Your task to perform on an android device: Go to Yahoo.com Image 0: 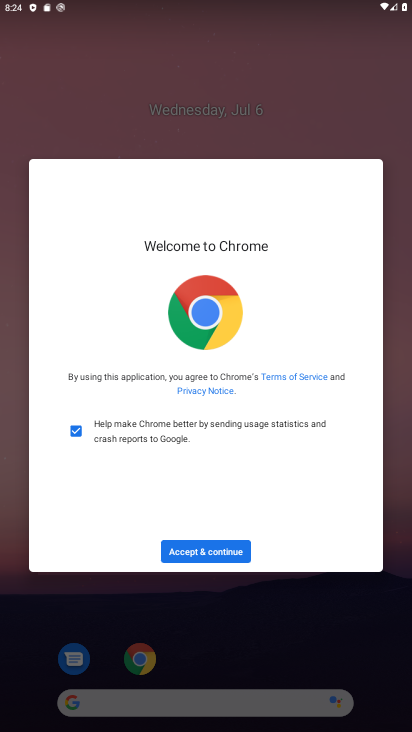
Step 0: press home button
Your task to perform on an android device: Go to Yahoo.com Image 1: 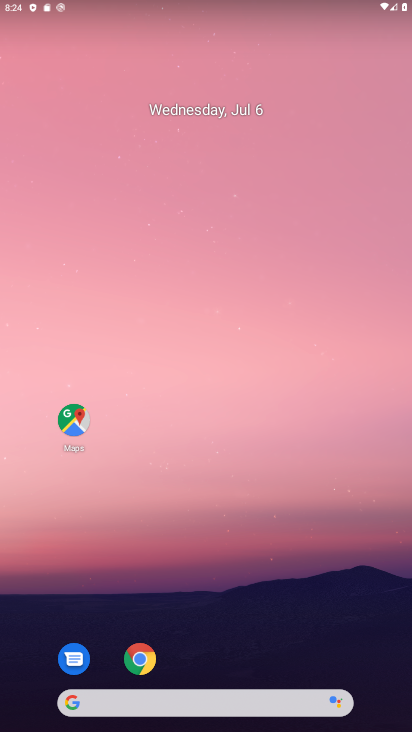
Step 1: drag from (201, 640) to (177, 64)
Your task to perform on an android device: Go to Yahoo.com Image 2: 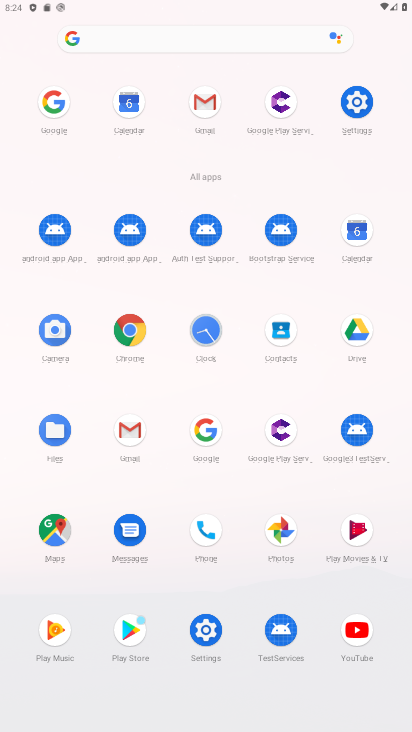
Step 2: drag from (207, 432) to (154, 379)
Your task to perform on an android device: Go to Yahoo.com Image 3: 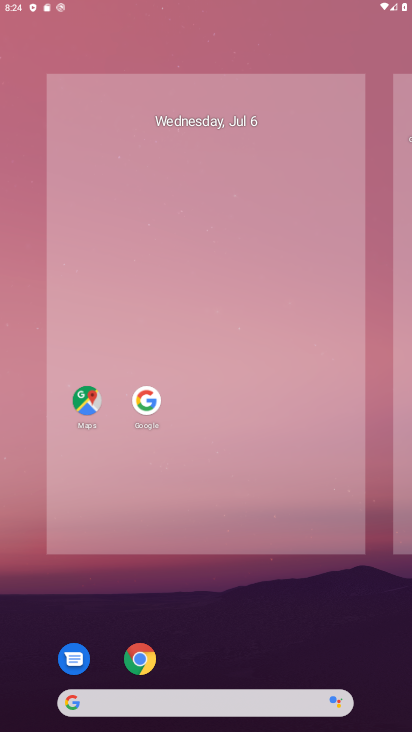
Step 3: click (142, 664)
Your task to perform on an android device: Go to Yahoo.com Image 4: 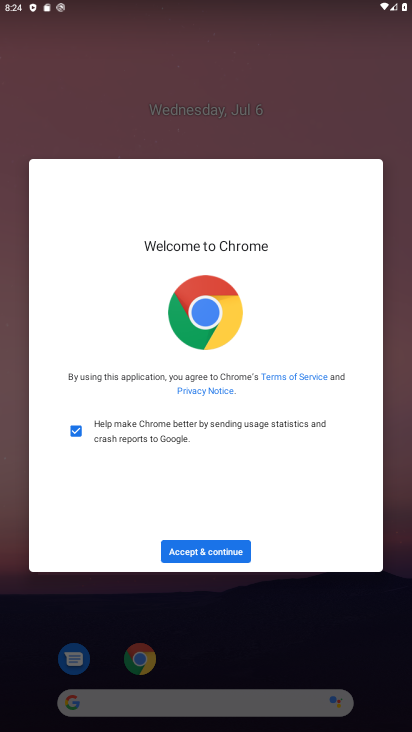
Step 4: click (199, 549)
Your task to perform on an android device: Go to Yahoo.com Image 5: 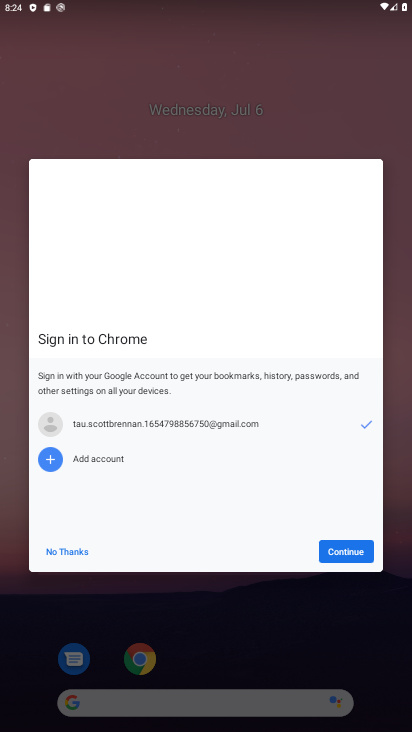
Step 5: click (384, 549)
Your task to perform on an android device: Go to Yahoo.com Image 6: 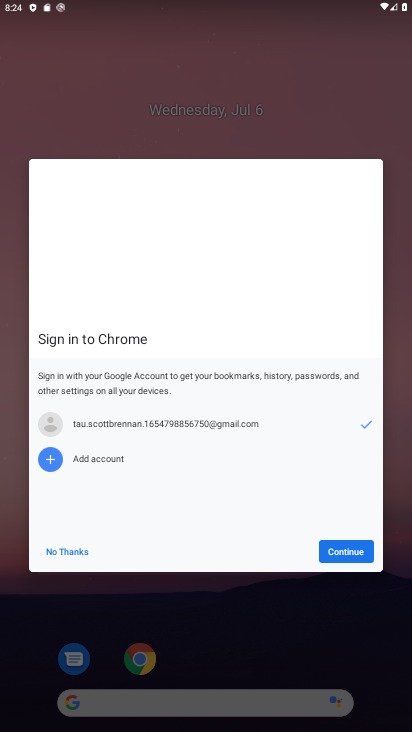
Step 6: click (343, 555)
Your task to perform on an android device: Go to Yahoo.com Image 7: 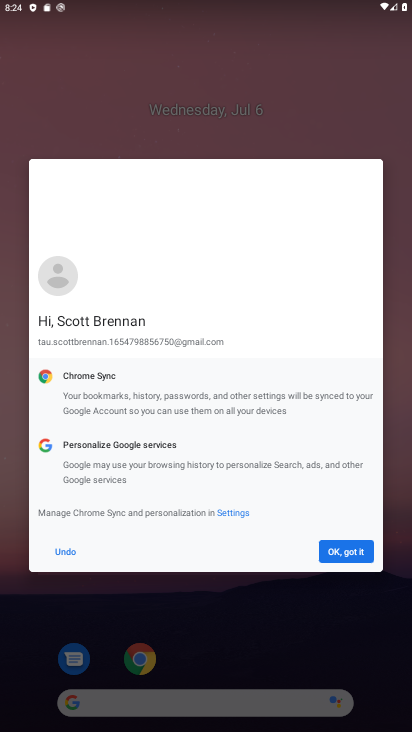
Step 7: click (343, 555)
Your task to perform on an android device: Go to Yahoo.com Image 8: 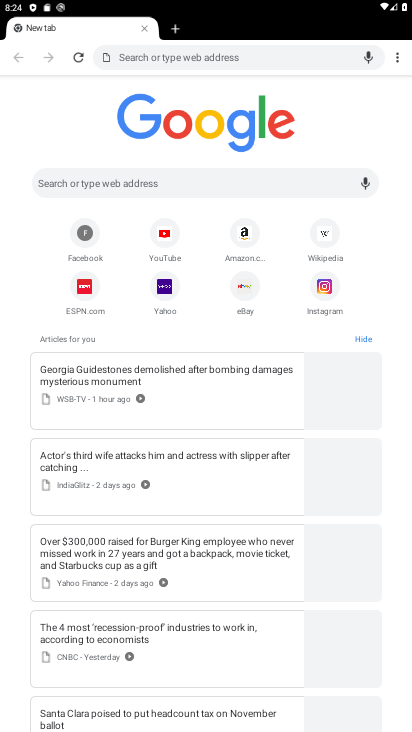
Step 8: click (166, 294)
Your task to perform on an android device: Go to Yahoo.com Image 9: 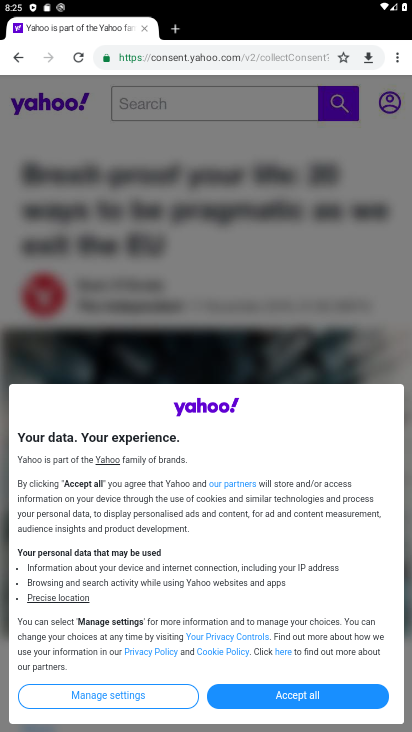
Step 9: click (286, 698)
Your task to perform on an android device: Go to Yahoo.com Image 10: 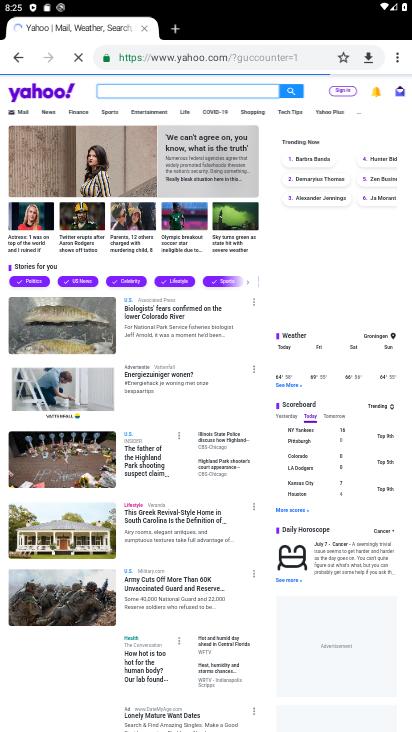
Step 10: task complete